Your task to perform on an android device: Open the Play Movies app and select the watchlist tab. Image 0: 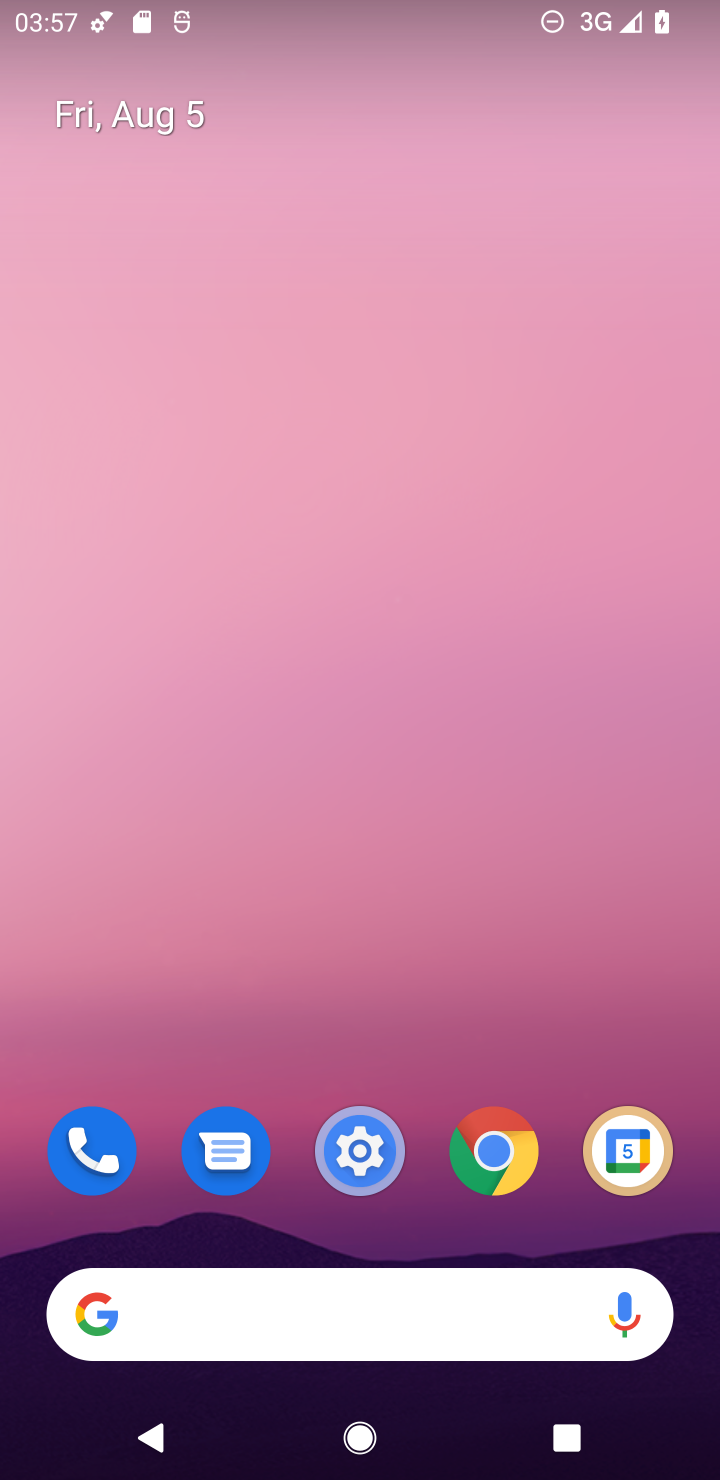
Step 0: drag from (316, 1015) to (268, 10)
Your task to perform on an android device: Open the Play Movies app and select the watchlist tab. Image 1: 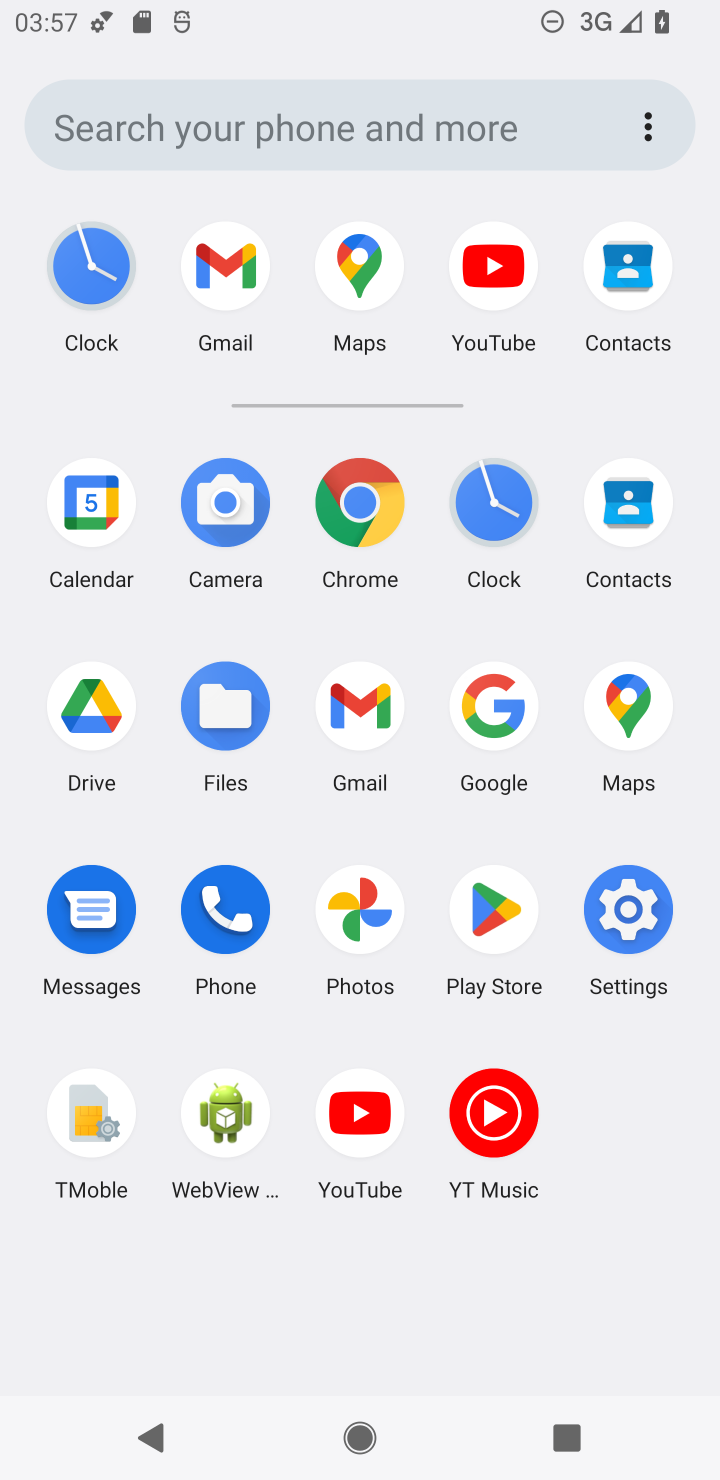
Step 1: task complete